Your task to perform on an android device: set default search engine in the chrome app Image 0: 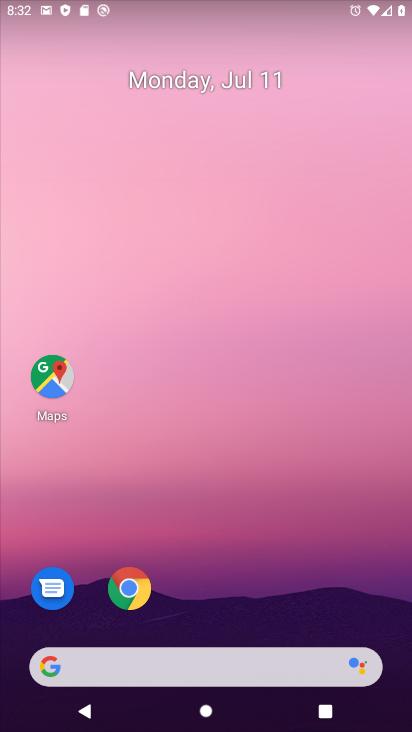
Step 0: click (133, 594)
Your task to perform on an android device: set default search engine in the chrome app Image 1: 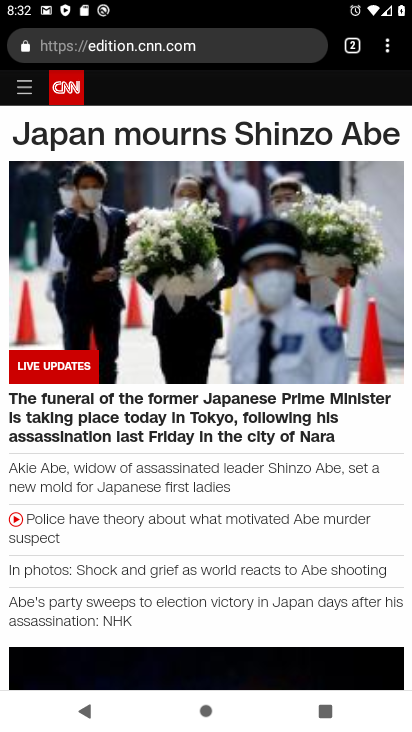
Step 1: drag from (389, 46) to (246, 591)
Your task to perform on an android device: set default search engine in the chrome app Image 2: 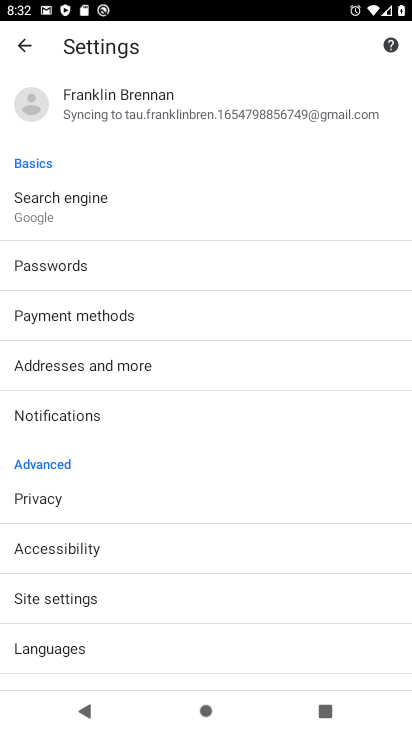
Step 2: click (82, 220)
Your task to perform on an android device: set default search engine in the chrome app Image 3: 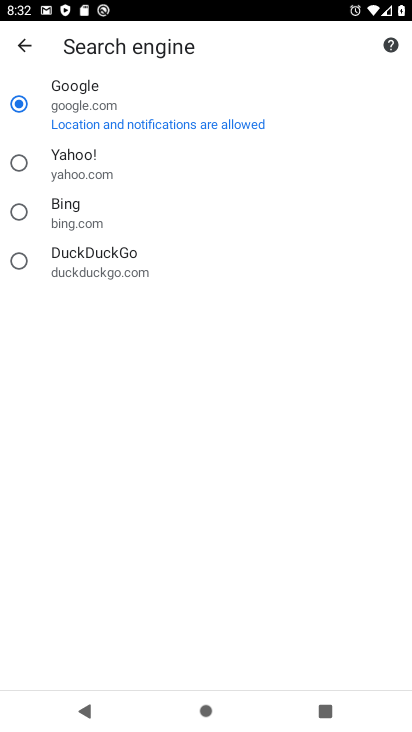
Step 3: click (15, 165)
Your task to perform on an android device: set default search engine in the chrome app Image 4: 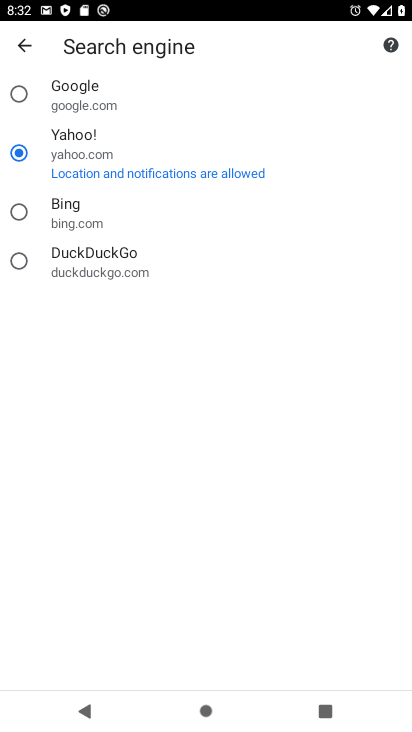
Step 4: task complete